Your task to perform on an android device: turn off smart reply in the gmail app Image 0: 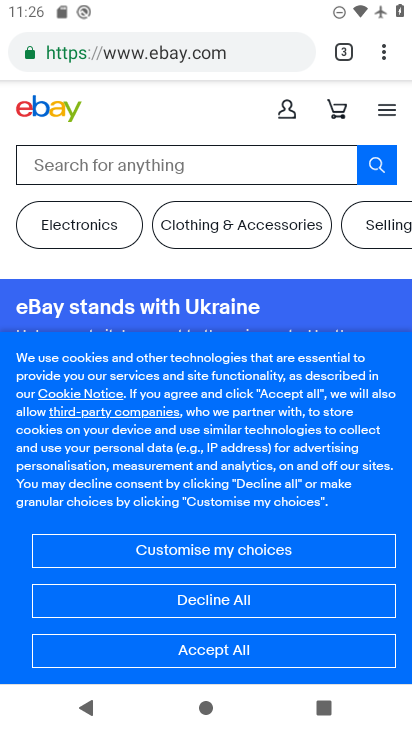
Step 0: press home button
Your task to perform on an android device: turn off smart reply in the gmail app Image 1: 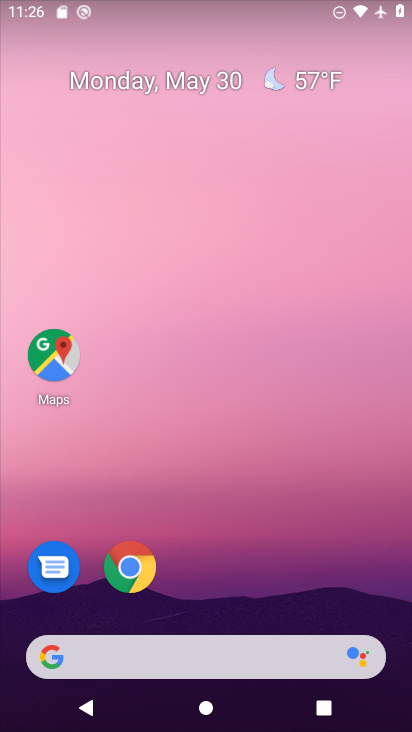
Step 1: drag from (208, 562) to (210, 154)
Your task to perform on an android device: turn off smart reply in the gmail app Image 2: 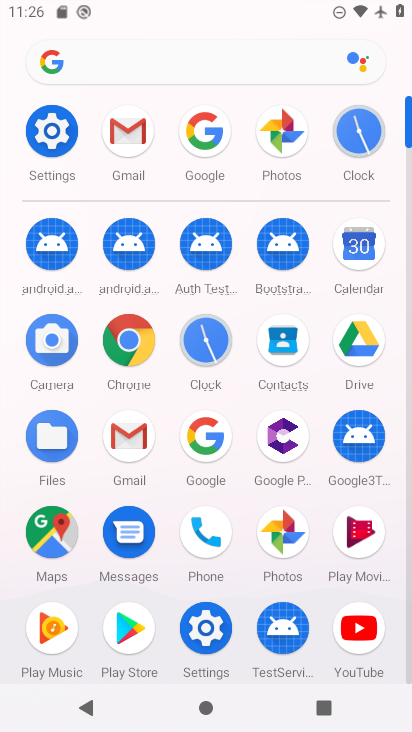
Step 2: click (132, 144)
Your task to perform on an android device: turn off smart reply in the gmail app Image 3: 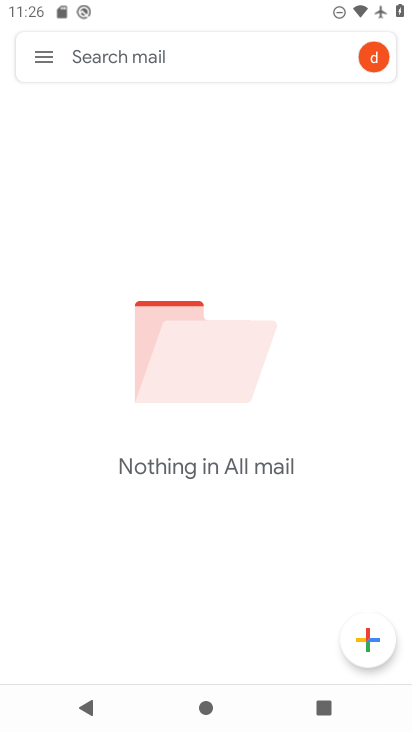
Step 3: click (44, 54)
Your task to perform on an android device: turn off smart reply in the gmail app Image 4: 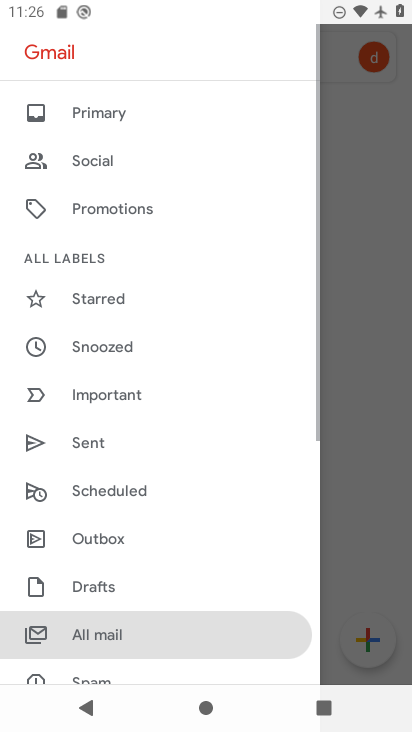
Step 4: drag from (186, 553) to (192, 205)
Your task to perform on an android device: turn off smart reply in the gmail app Image 5: 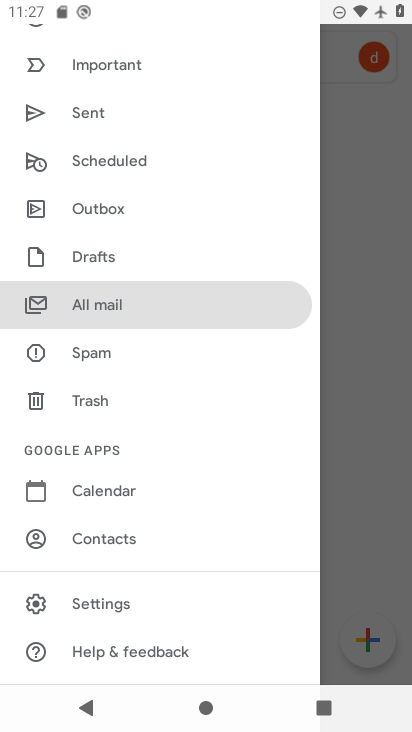
Step 5: click (111, 600)
Your task to perform on an android device: turn off smart reply in the gmail app Image 6: 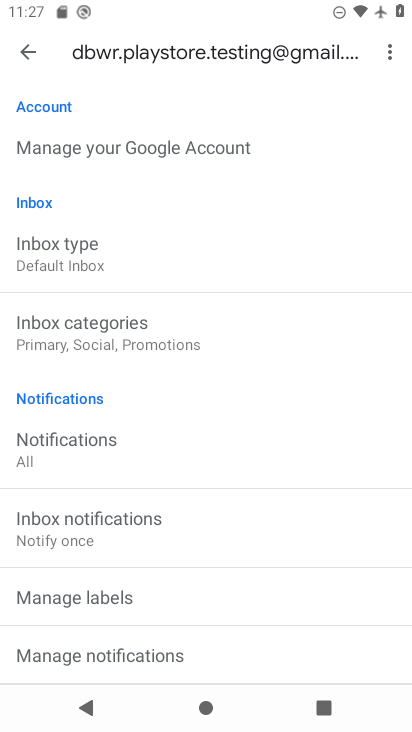
Step 6: drag from (120, 608) to (144, 285)
Your task to perform on an android device: turn off smart reply in the gmail app Image 7: 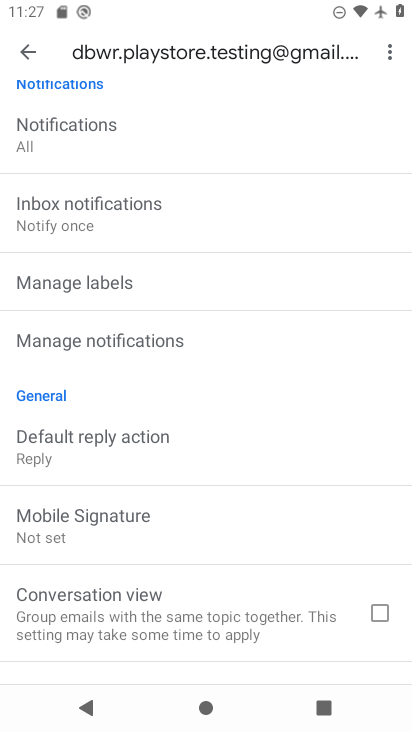
Step 7: drag from (144, 547) to (166, 283)
Your task to perform on an android device: turn off smart reply in the gmail app Image 8: 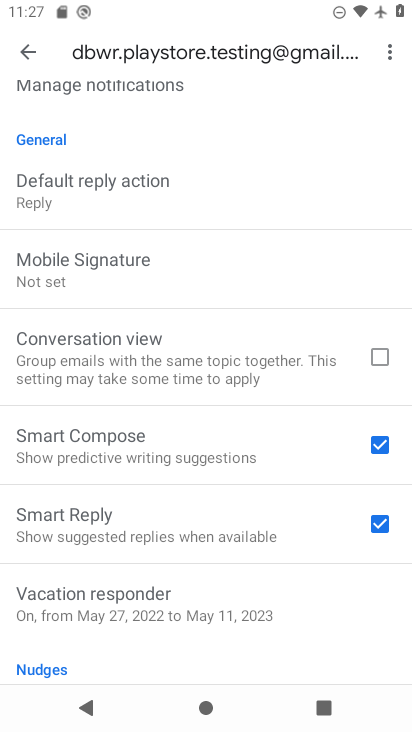
Step 8: drag from (152, 550) to (193, 267)
Your task to perform on an android device: turn off smart reply in the gmail app Image 9: 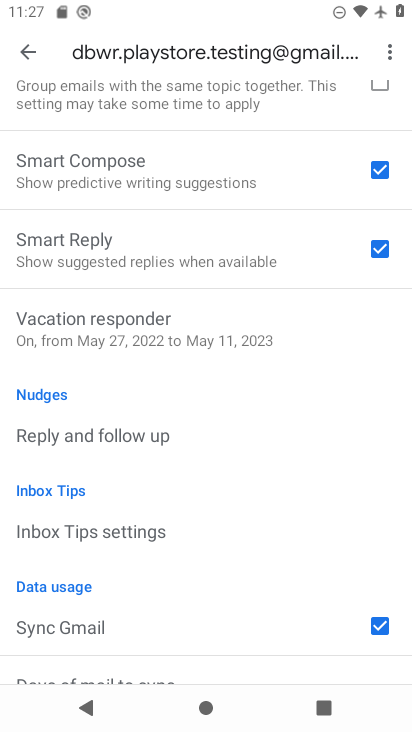
Step 9: drag from (177, 519) to (215, 336)
Your task to perform on an android device: turn off smart reply in the gmail app Image 10: 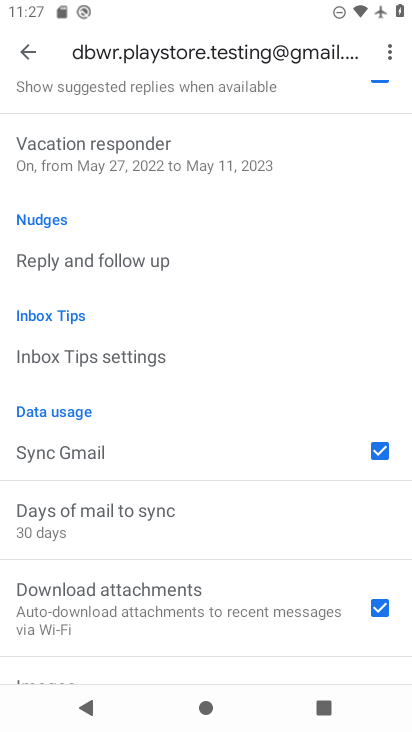
Step 10: drag from (167, 584) to (203, 305)
Your task to perform on an android device: turn off smart reply in the gmail app Image 11: 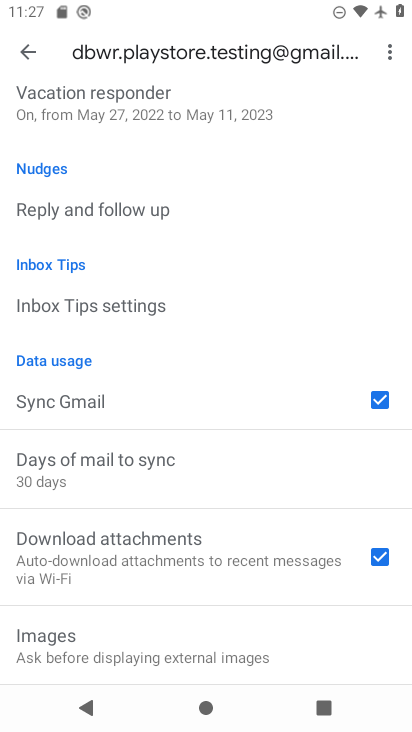
Step 11: drag from (152, 587) to (212, 245)
Your task to perform on an android device: turn off smart reply in the gmail app Image 12: 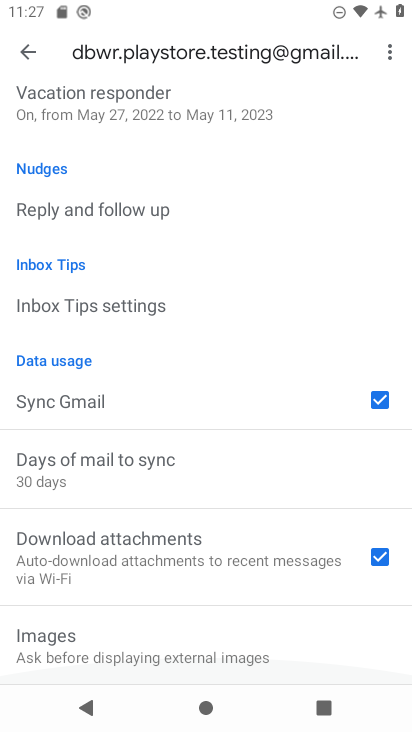
Step 12: drag from (216, 243) to (208, 523)
Your task to perform on an android device: turn off smart reply in the gmail app Image 13: 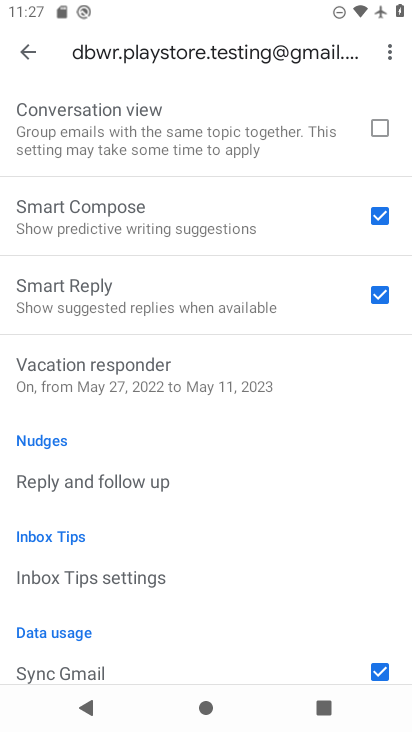
Step 13: click (386, 293)
Your task to perform on an android device: turn off smart reply in the gmail app Image 14: 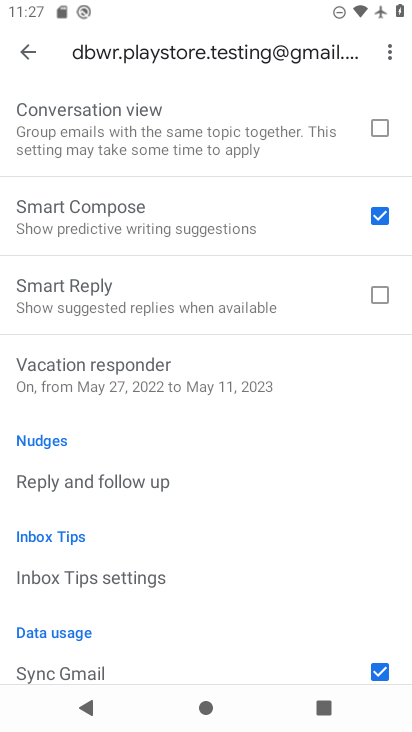
Step 14: task complete